Your task to perform on an android device: change the clock display to analog Image 0: 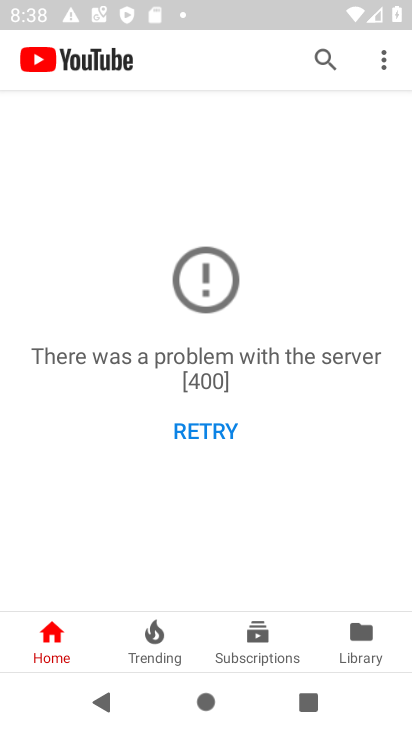
Step 0: press home button
Your task to perform on an android device: change the clock display to analog Image 1: 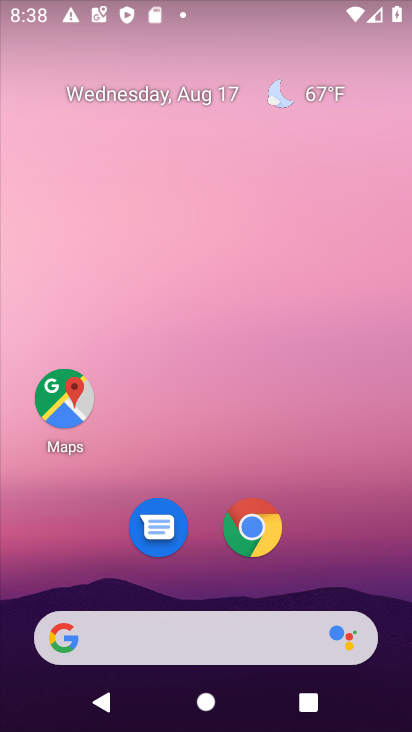
Step 1: drag from (198, 582) to (229, 164)
Your task to perform on an android device: change the clock display to analog Image 2: 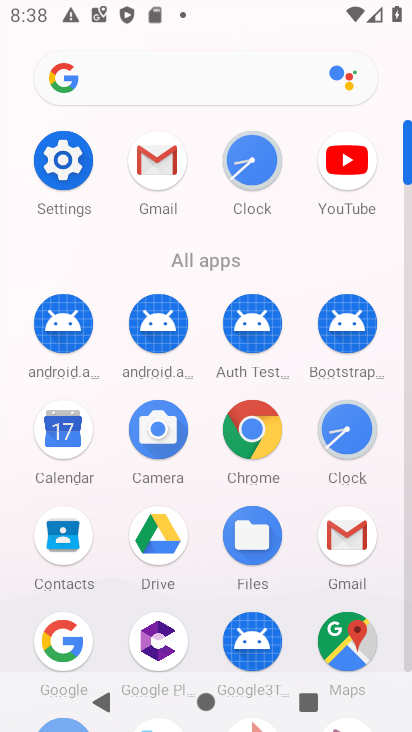
Step 2: click (228, 164)
Your task to perform on an android device: change the clock display to analog Image 3: 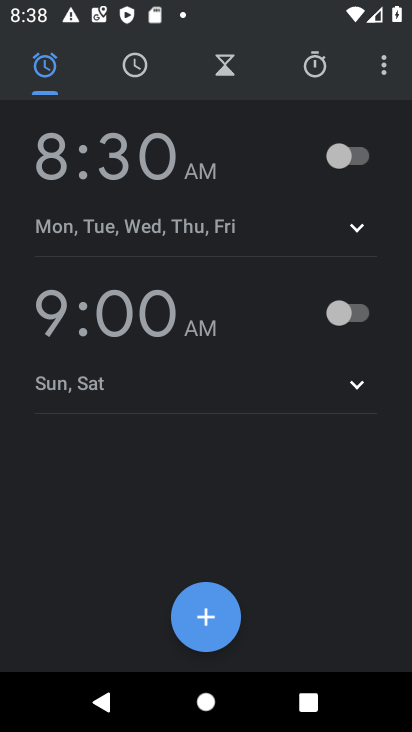
Step 3: click (389, 52)
Your task to perform on an android device: change the clock display to analog Image 4: 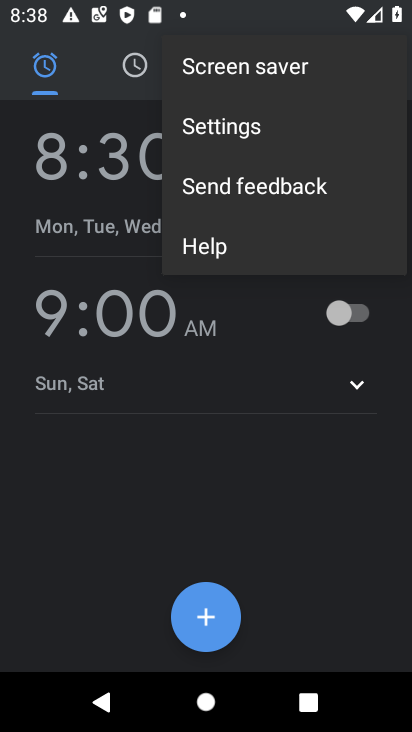
Step 4: click (310, 132)
Your task to perform on an android device: change the clock display to analog Image 5: 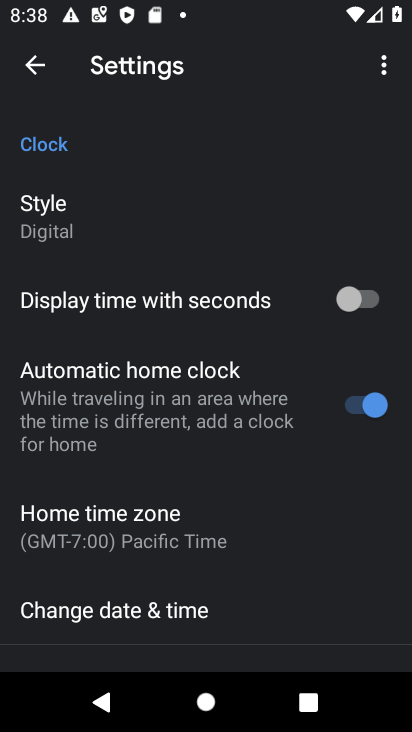
Step 5: click (177, 212)
Your task to perform on an android device: change the clock display to analog Image 6: 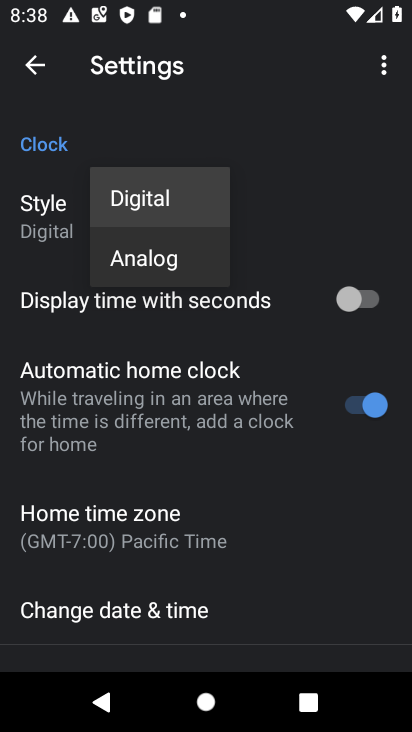
Step 6: click (174, 253)
Your task to perform on an android device: change the clock display to analog Image 7: 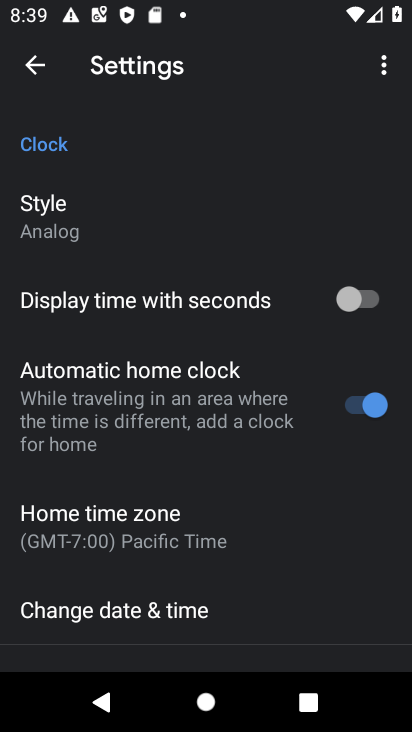
Step 7: task complete